Your task to perform on an android device: see tabs open on other devices in the chrome app Image 0: 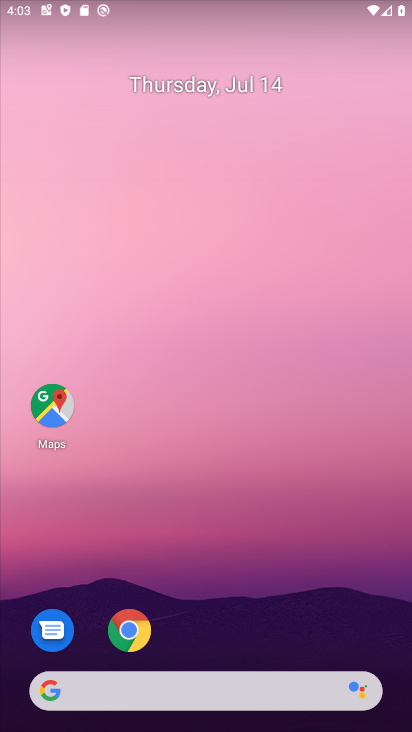
Step 0: drag from (217, 645) to (289, 2)
Your task to perform on an android device: see tabs open on other devices in the chrome app Image 1: 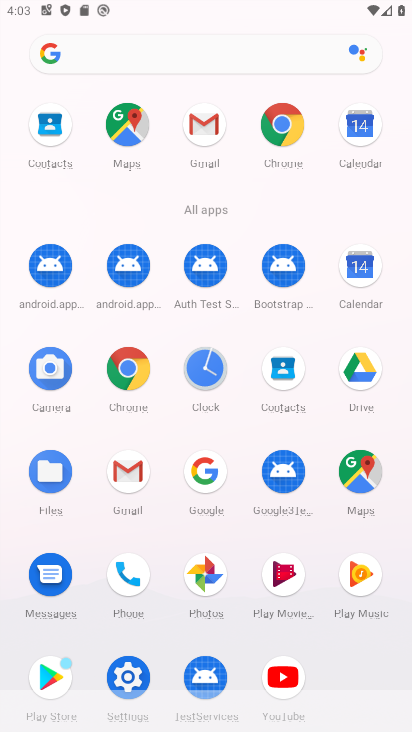
Step 1: click (122, 361)
Your task to perform on an android device: see tabs open on other devices in the chrome app Image 2: 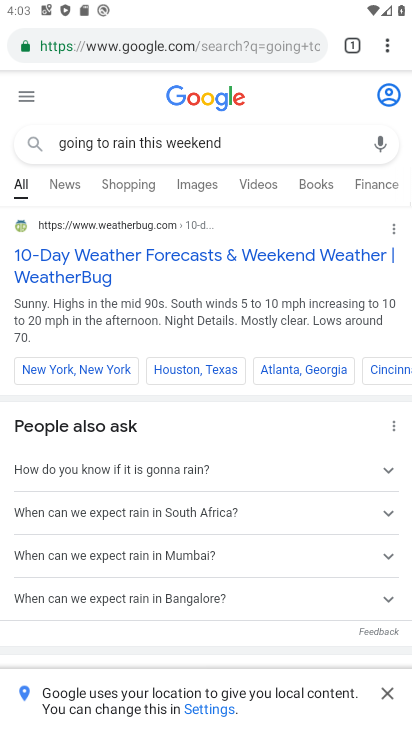
Step 2: task complete